Your task to perform on an android device: check the backup settings in the google photos Image 0: 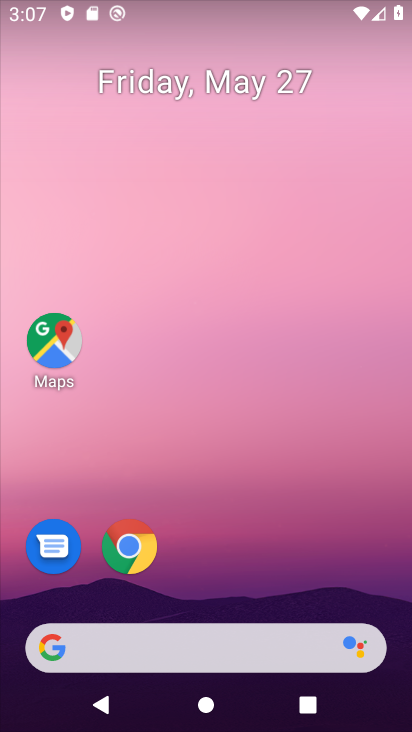
Step 0: drag from (230, 579) to (317, 117)
Your task to perform on an android device: check the backup settings in the google photos Image 1: 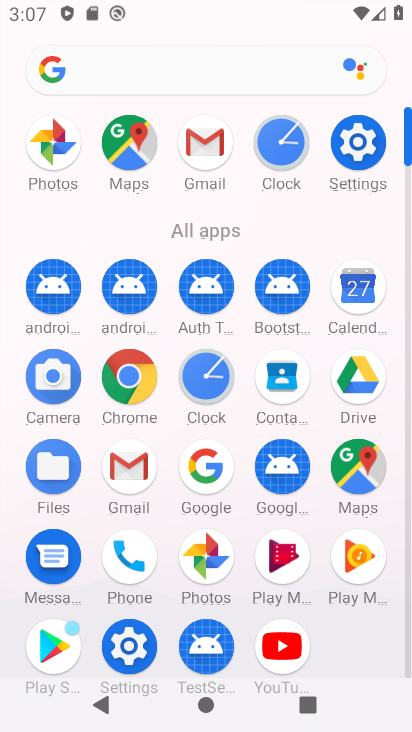
Step 1: drag from (206, 534) to (253, 366)
Your task to perform on an android device: check the backup settings in the google photos Image 2: 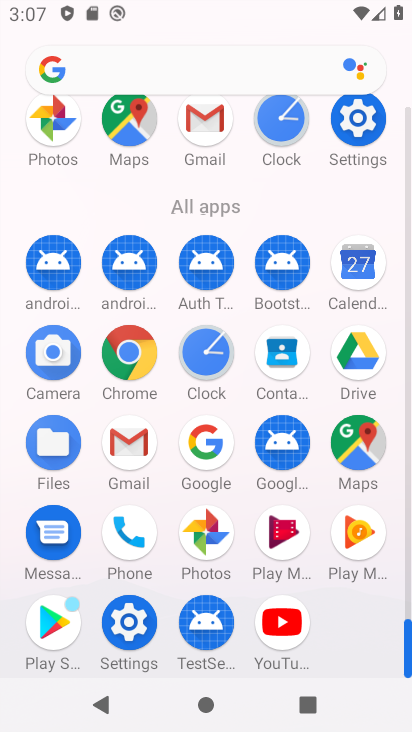
Step 2: click (221, 514)
Your task to perform on an android device: check the backup settings in the google photos Image 3: 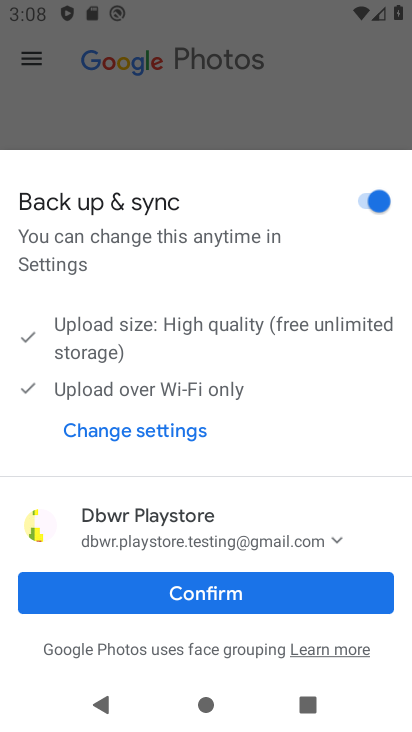
Step 3: click (237, 600)
Your task to perform on an android device: check the backup settings in the google photos Image 4: 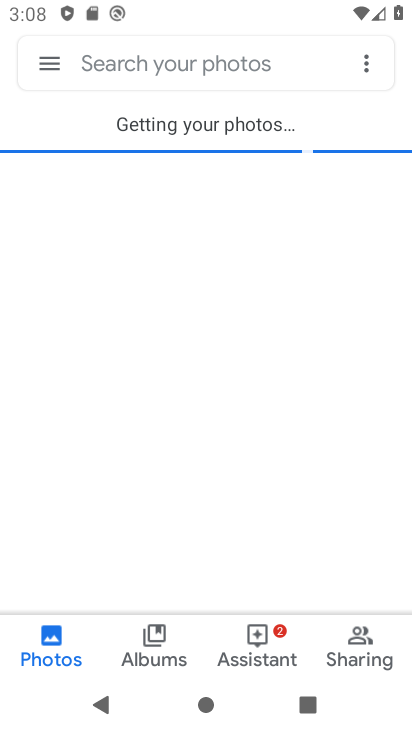
Step 4: click (62, 70)
Your task to perform on an android device: check the backup settings in the google photos Image 5: 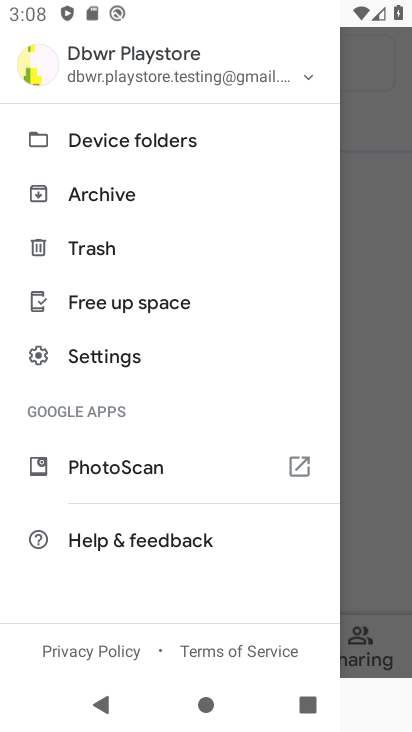
Step 5: drag from (167, 549) to (261, 245)
Your task to perform on an android device: check the backup settings in the google photos Image 6: 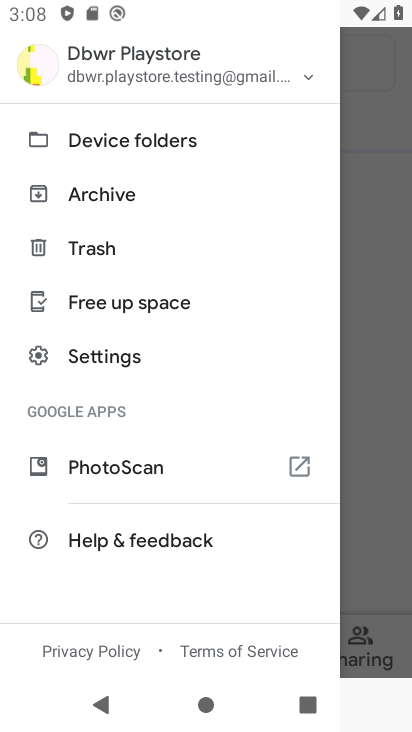
Step 6: click (167, 381)
Your task to perform on an android device: check the backup settings in the google photos Image 7: 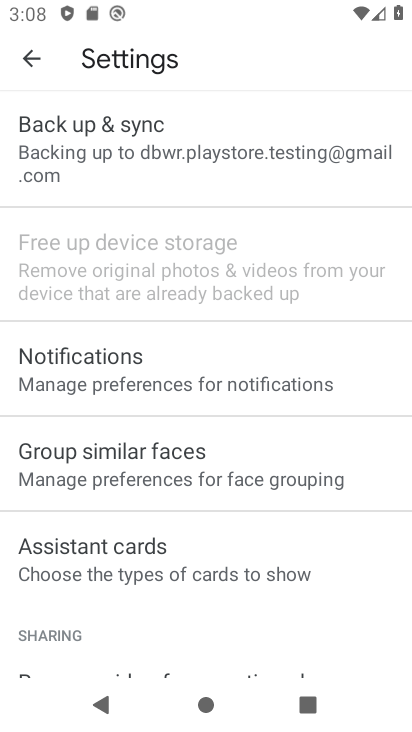
Step 7: click (255, 150)
Your task to perform on an android device: check the backup settings in the google photos Image 8: 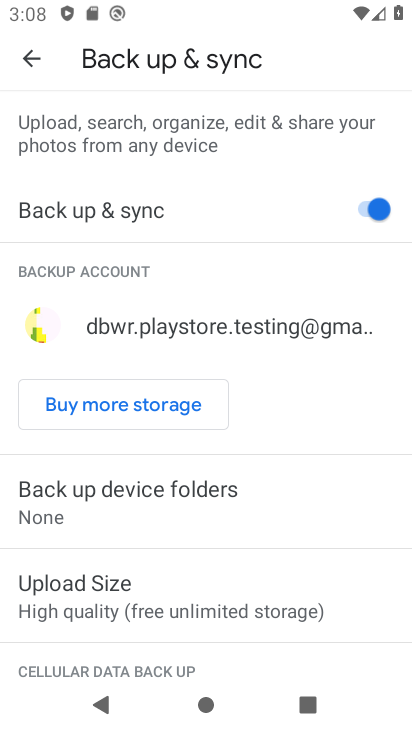
Step 8: task complete